Your task to perform on an android device: Search for Mexican restaurants on Maps Image 0: 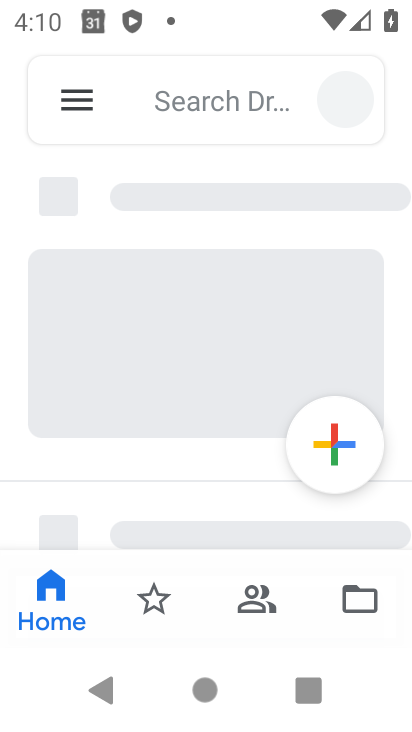
Step 0: press home button
Your task to perform on an android device: Search for Mexican restaurants on Maps Image 1: 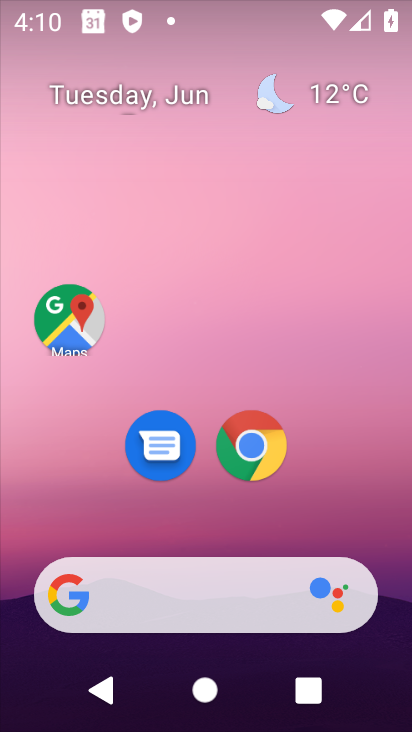
Step 1: drag from (339, 468) to (366, 6)
Your task to perform on an android device: Search for Mexican restaurants on Maps Image 2: 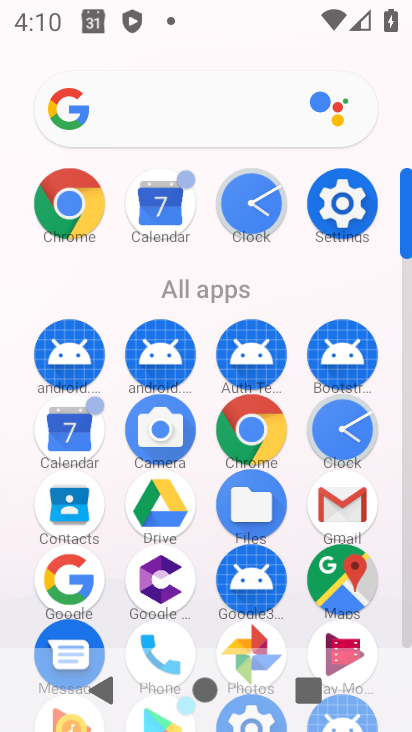
Step 2: click (358, 600)
Your task to perform on an android device: Search for Mexican restaurants on Maps Image 3: 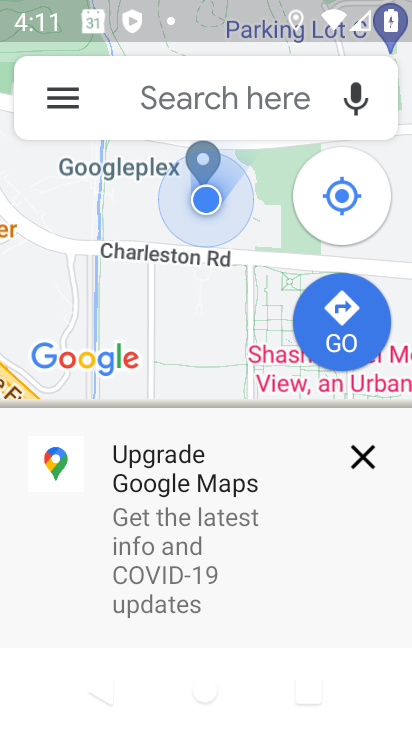
Step 3: click (238, 110)
Your task to perform on an android device: Search for Mexican restaurants on Maps Image 4: 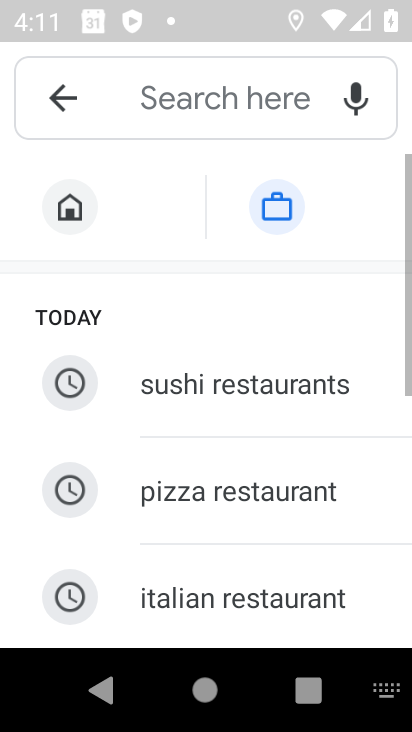
Step 4: drag from (304, 517) to (295, 161)
Your task to perform on an android device: Search for Mexican restaurants on Maps Image 5: 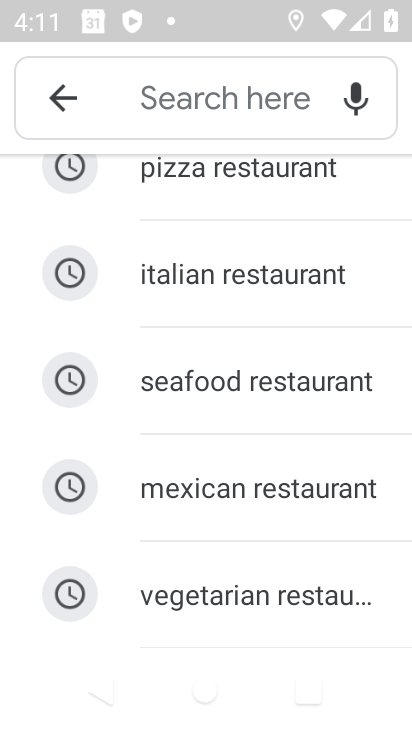
Step 5: click (243, 475)
Your task to perform on an android device: Search for Mexican restaurants on Maps Image 6: 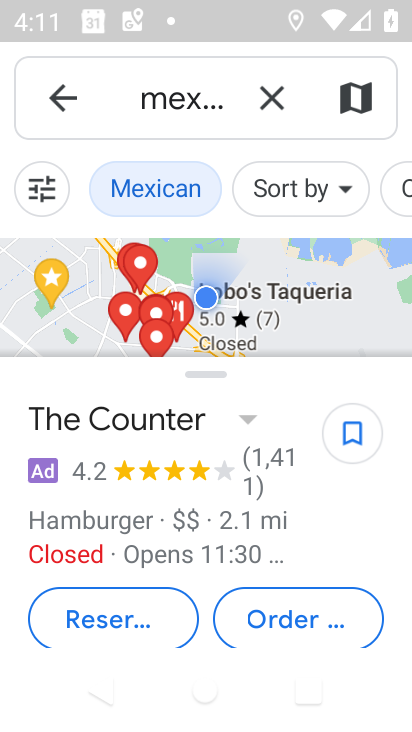
Step 6: task complete